Your task to perform on an android device: check battery use Image 0: 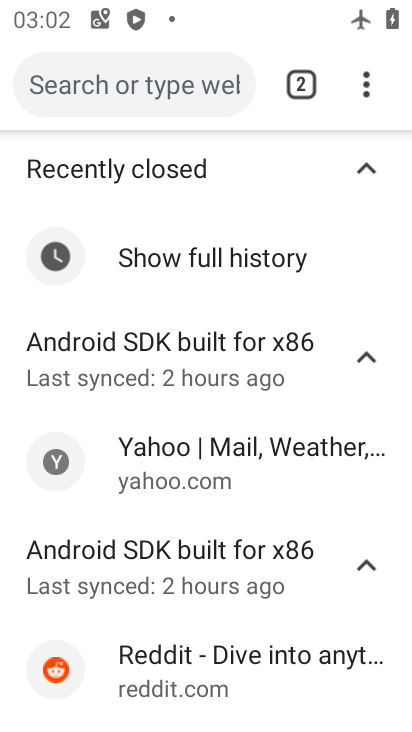
Step 0: press home button
Your task to perform on an android device: check battery use Image 1: 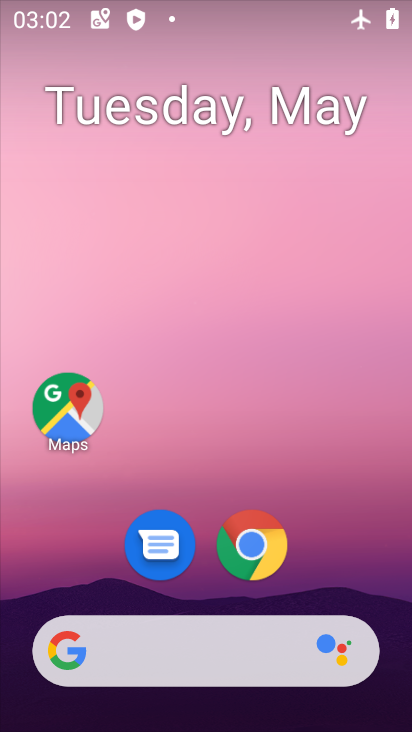
Step 1: drag from (396, 621) to (300, 86)
Your task to perform on an android device: check battery use Image 2: 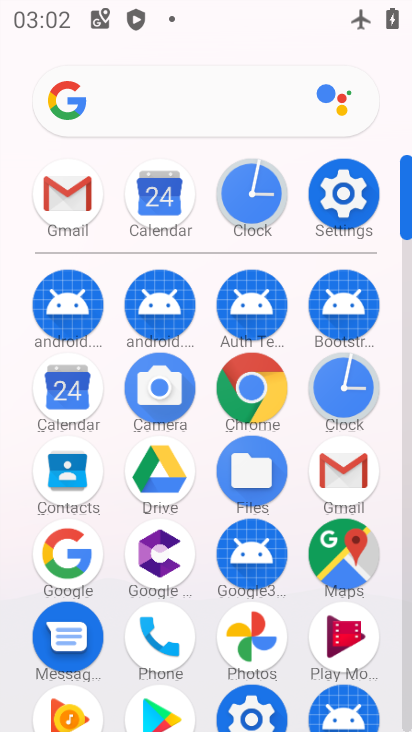
Step 2: click (406, 666)
Your task to perform on an android device: check battery use Image 3: 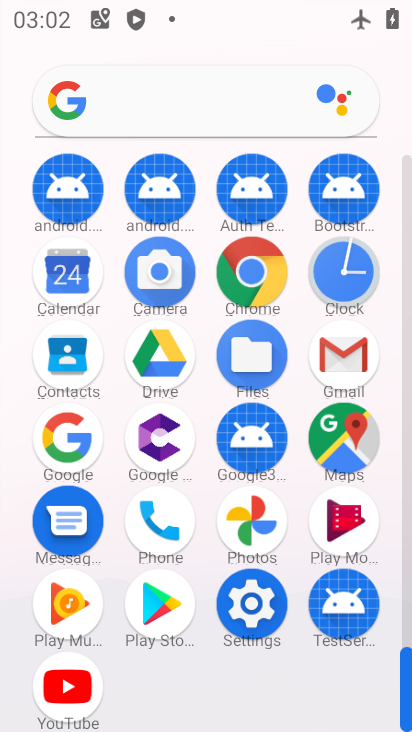
Step 3: click (249, 599)
Your task to perform on an android device: check battery use Image 4: 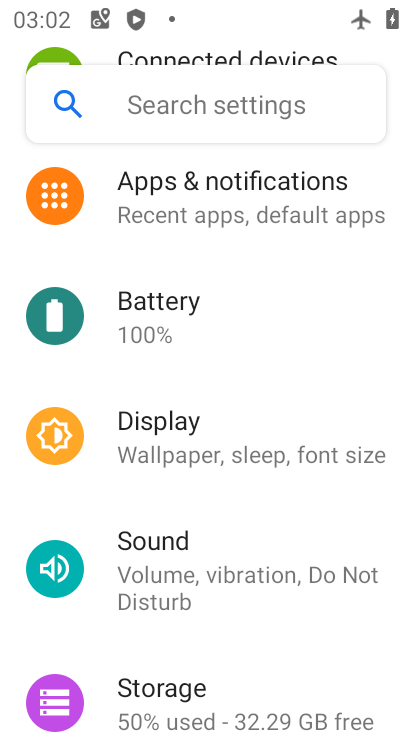
Step 4: click (143, 322)
Your task to perform on an android device: check battery use Image 5: 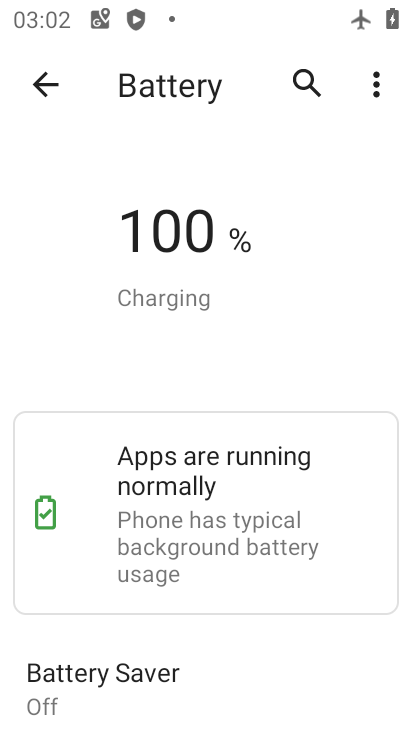
Step 5: drag from (291, 609) to (253, 222)
Your task to perform on an android device: check battery use Image 6: 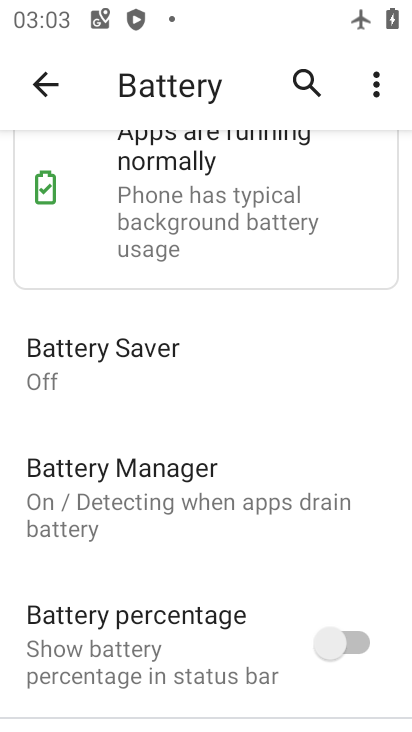
Step 6: drag from (266, 607) to (245, 246)
Your task to perform on an android device: check battery use Image 7: 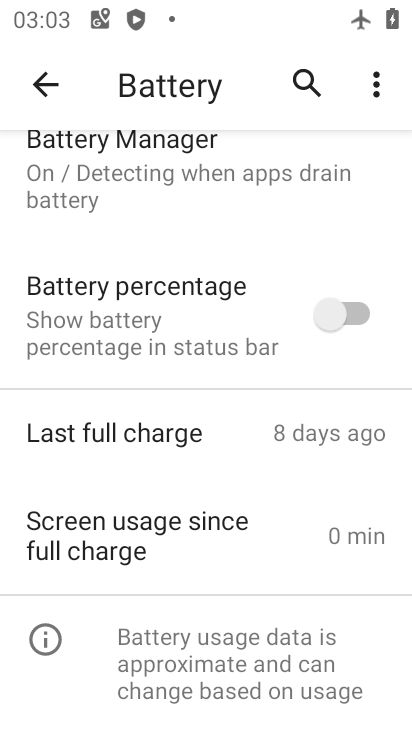
Step 7: click (369, 87)
Your task to perform on an android device: check battery use Image 8: 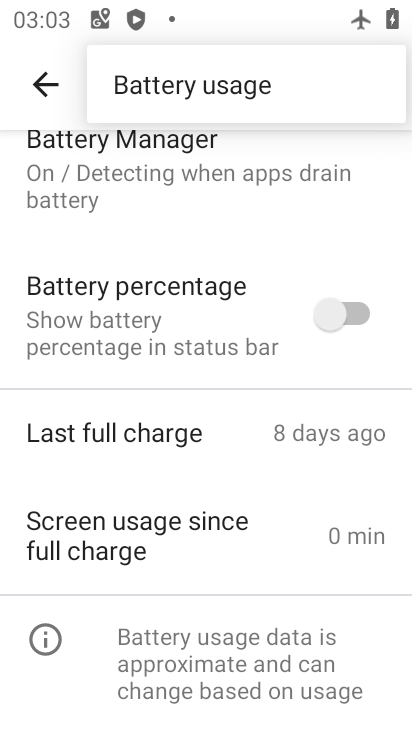
Step 8: click (173, 89)
Your task to perform on an android device: check battery use Image 9: 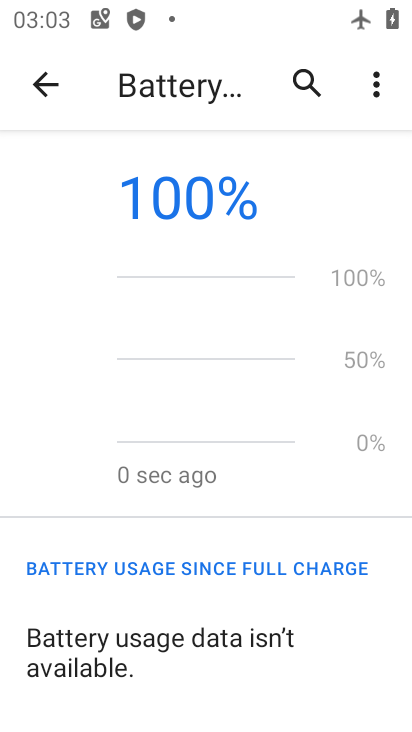
Step 9: task complete